Your task to perform on an android device: open app "Pluto TV - Live TV and Movies" Image 0: 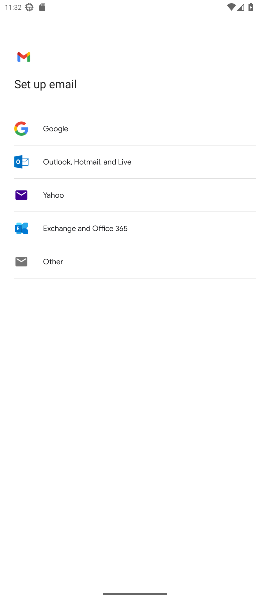
Step 0: press home button
Your task to perform on an android device: open app "Pluto TV - Live TV and Movies" Image 1: 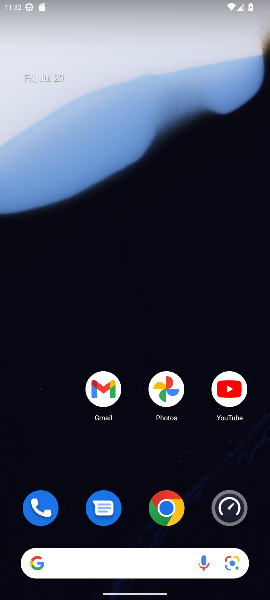
Step 1: drag from (155, 464) to (165, 29)
Your task to perform on an android device: open app "Pluto TV - Live TV and Movies" Image 2: 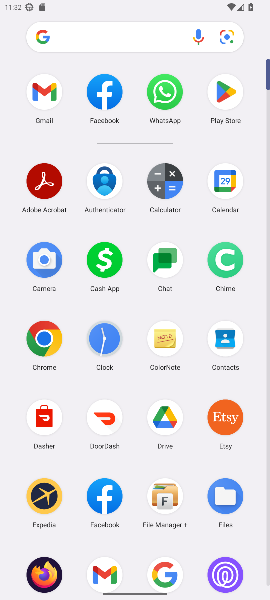
Step 2: click (228, 85)
Your task to perform on an android device: open app "Pluto TV - Live TV and Movies" Image 3: 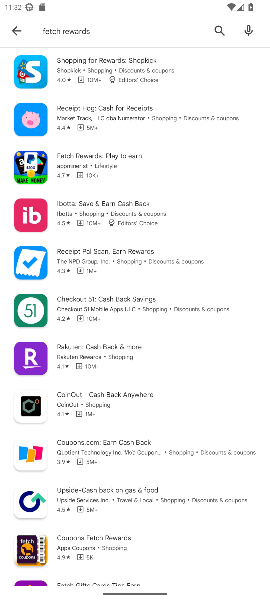
Step 3: click (219, 27)
Your task to perform on an android device: open app "Pluto TV - Live TV and Movies" Image 4: 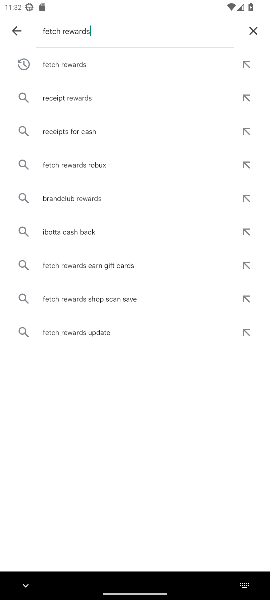
Step 4: click (255, 29)
Your task to perform on an android device: open app "Pluto TV - Live TV and Movies" Image 5: 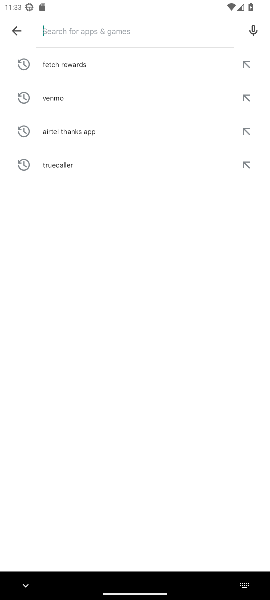
Step 5: type "pluto tv - live tv and movies"
Your task to perform on an android device: open app "Pluto TV - Live TV and Movies" Image 6: 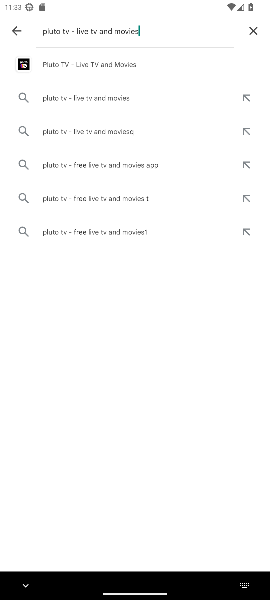
Step 6: click (127, 63)
Your task to perform on an android device: open app "Pluto TV - Live TV and Movies" Image 7: 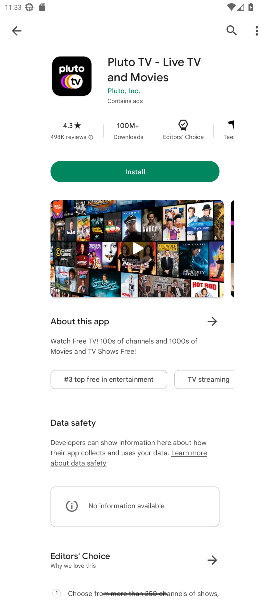
Step 7: task complete